Your task to perform on an android device: Add "razer thresher" to the cart on amazon, then select checkout. Image 0: 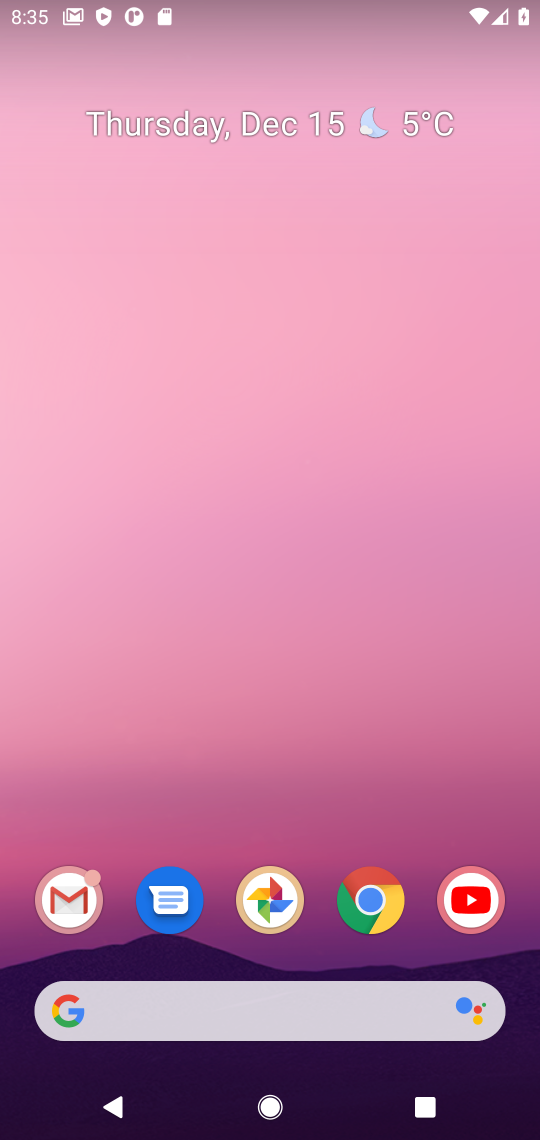
Step 0: click (388, 909)
Your task to perform on an android device: Add "razer thresher" to the cart on amazon, then select checkout. Image 1: 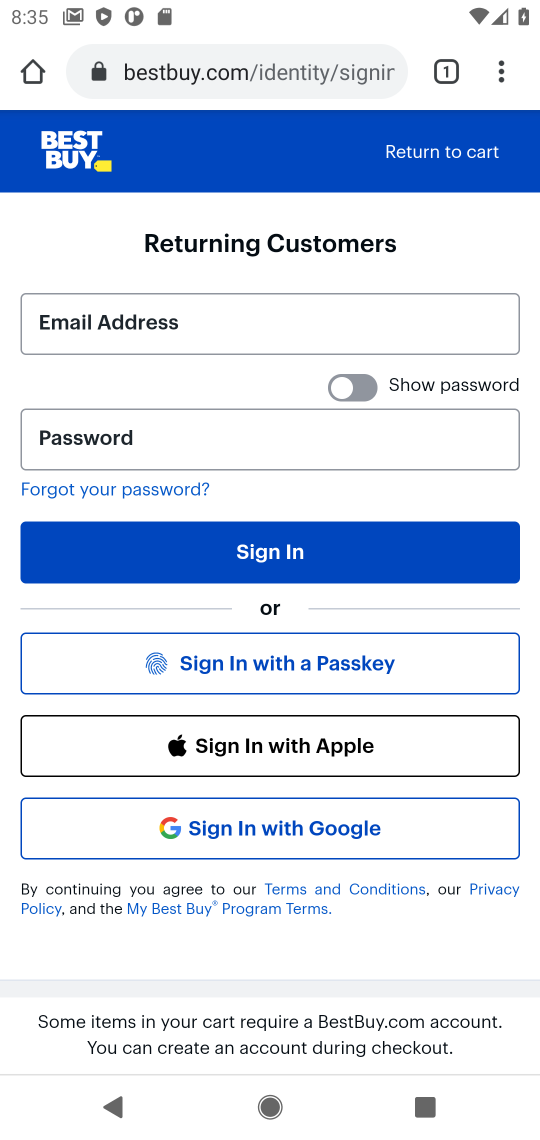
Step 1: click (170, 79)
Your task to perform on an android device: Add "razer thresher" to the cart on amazon, then select checkout. Image 2: 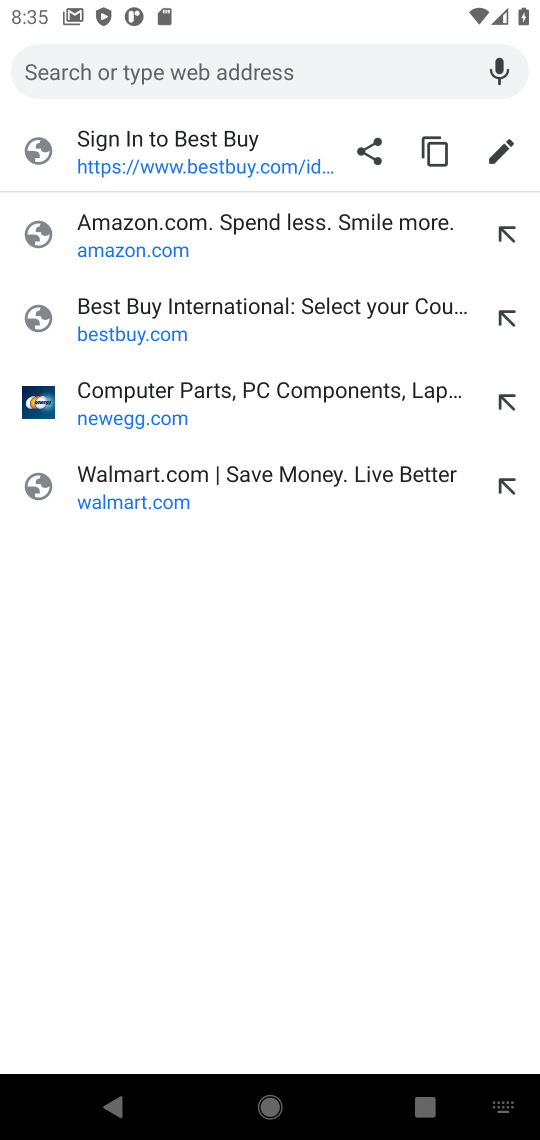
Step 2: type "amazon"
Your task to perform on an android device: Add "razer thresher" to the cart on amazon, then select checkout. Image 3: 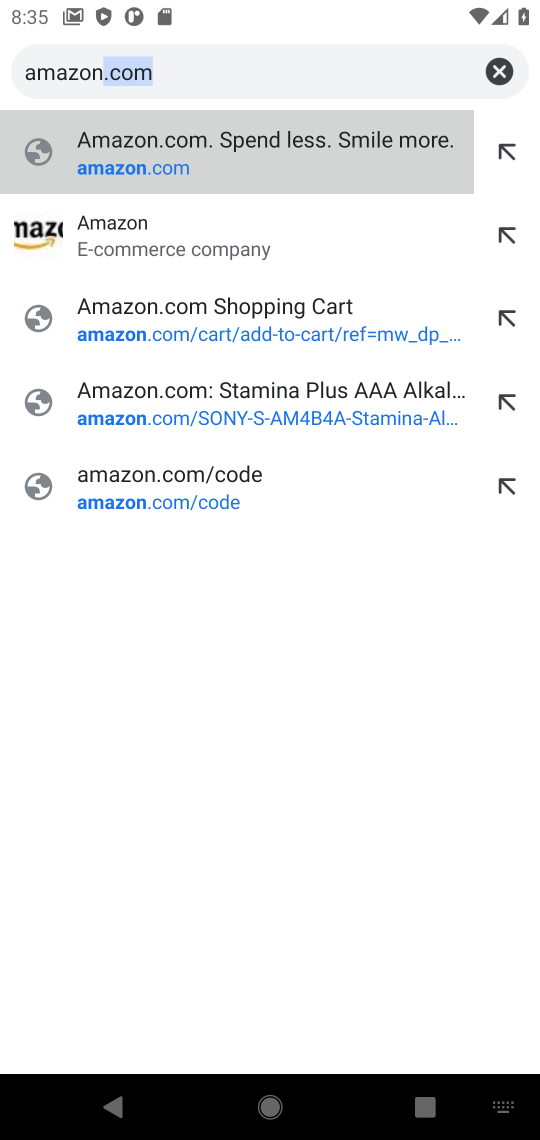
Step 3: click (149, 148)
Your task to perform on an android device: Add "razer thresher" to the cart on amazon, then select checkout. Image 4: 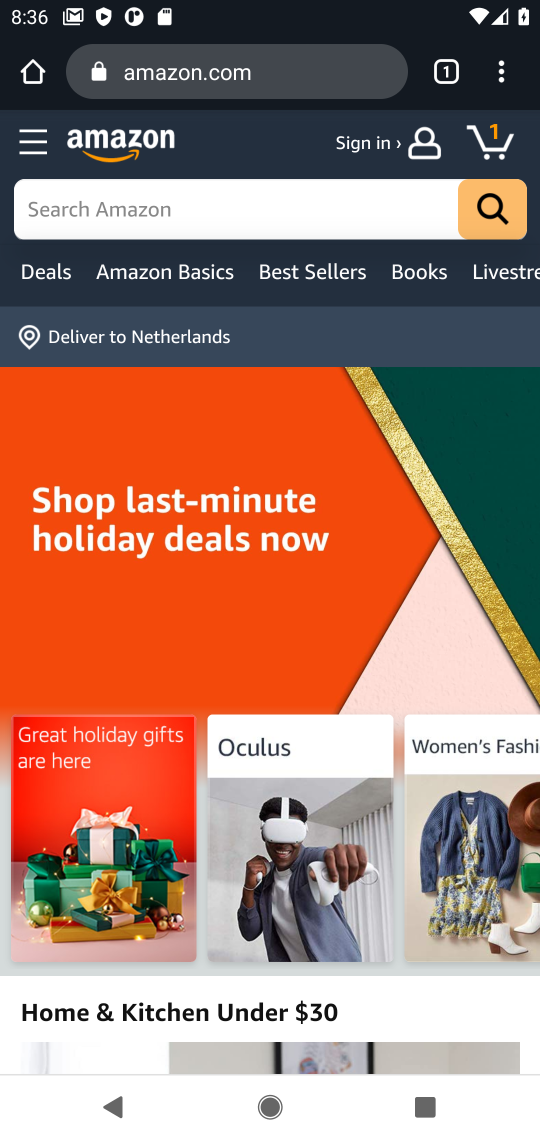
Step 4: click (220, 204)
Your task to perform on an android device: Add "razer thresher" to the cart on amazon, then select checkout. Image 5: 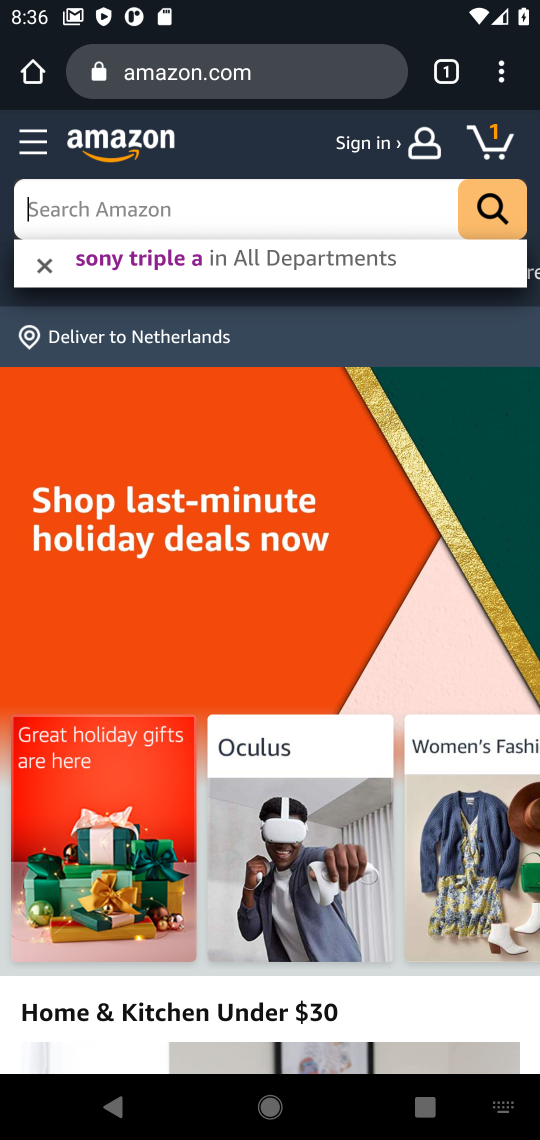
Step 5: type "razer thresher"
Your task to perform on an android device: Add "razer thresher" to the cart on amazon, then select checkout. Image 6: 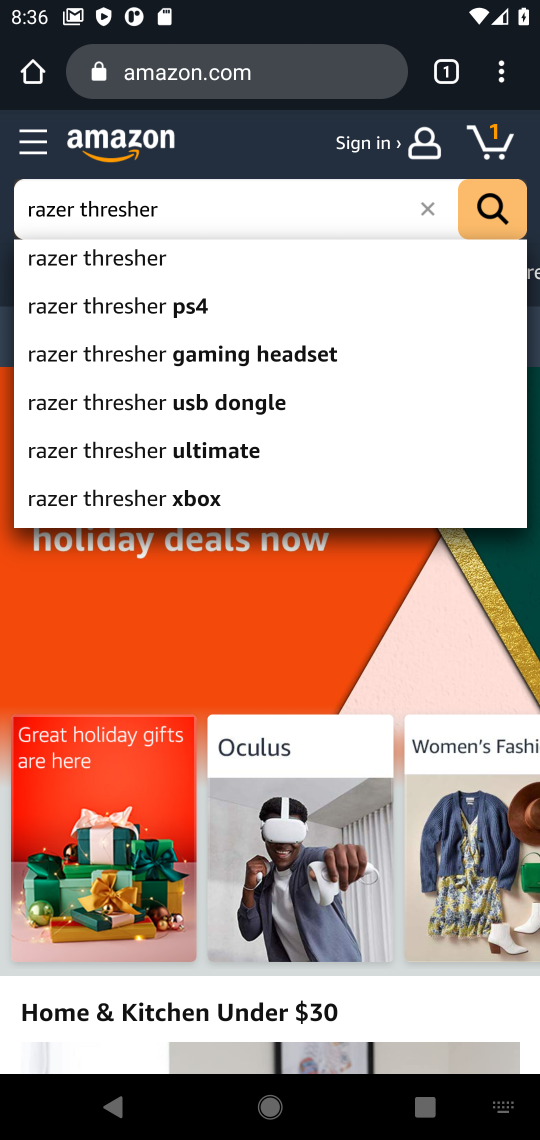
Step 6: click (494, 215)
Your task to perform on an android device: Add "razer thresher" to the cart on amazon, then select checkout. Image 7: 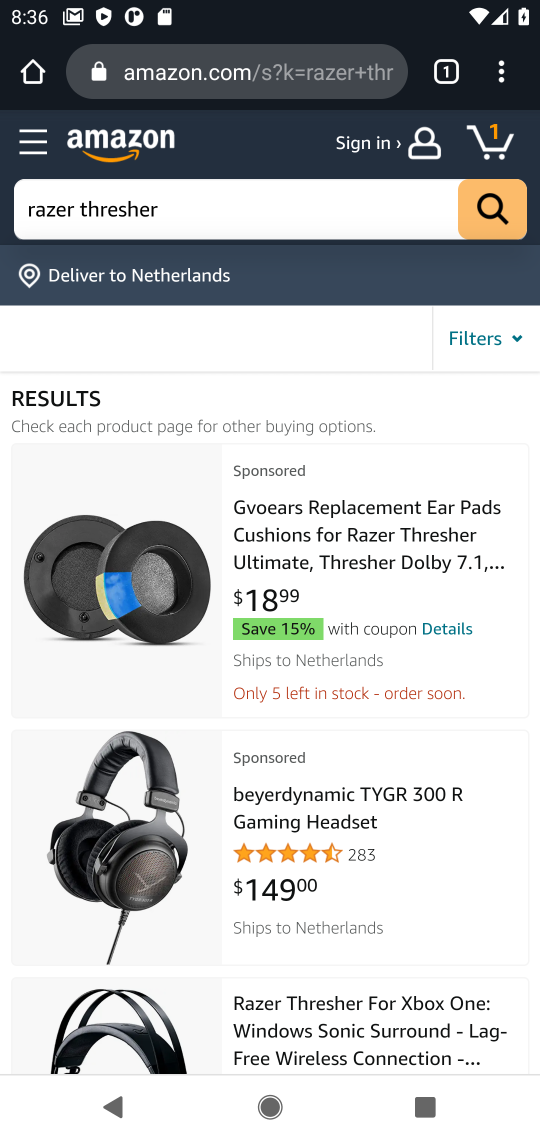
Step 7: click (331, 1038)
Your task to perform on an android device: Add "razer thresher" to the cart on amazon, then select checkout. Image 8: 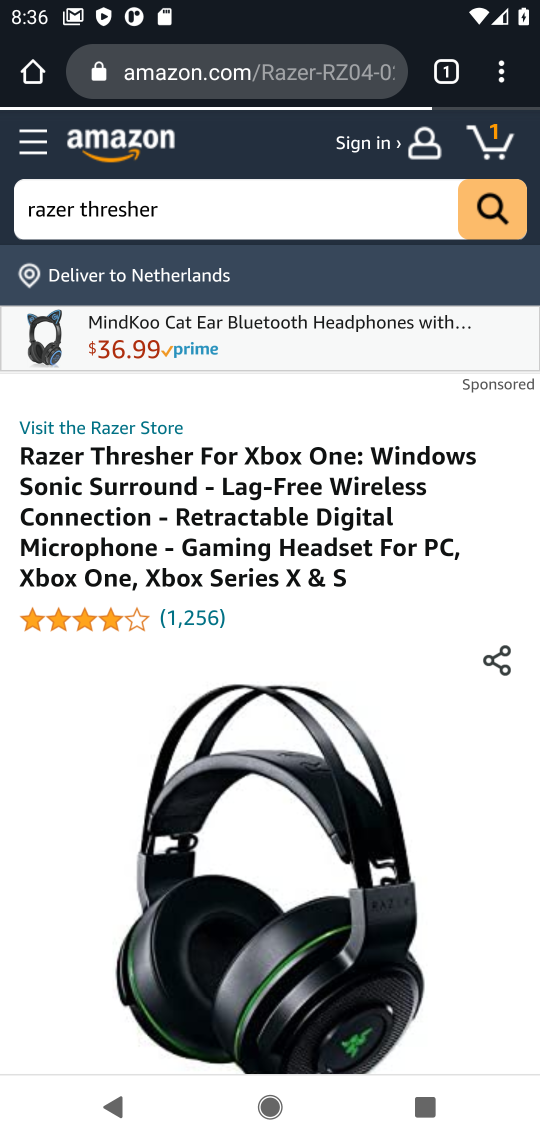
Step 8: drag from (441, 673) to (455, 446)
Your task to perform on an android device: Add "razer thresher" to the cart on amazon, then select checkout. Image 9: 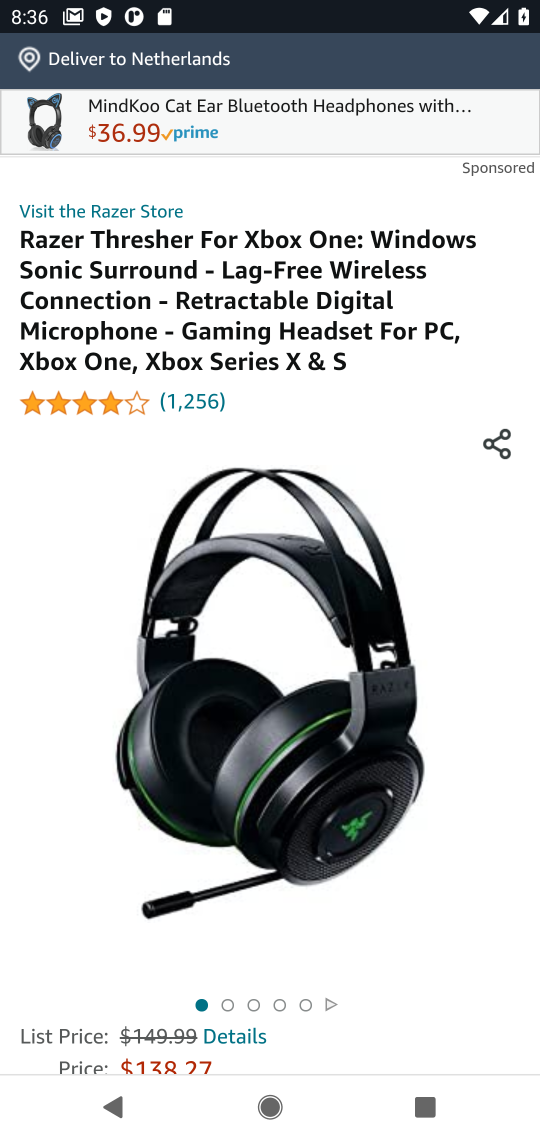
Step 9: drag from (413, 1027) to (438, 327)
Your task to perform on an android device: Add "razer thresher" to the cart on amazon, then select checkout. Image 10: 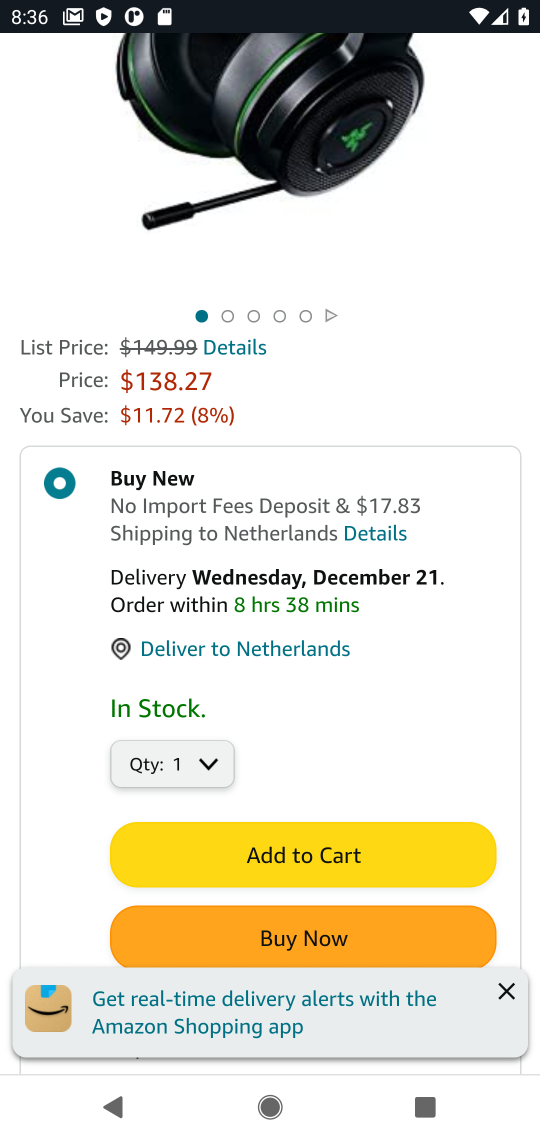
Step 10: click (290, 851)
Your task to perform on an android device: Add "razer thresher" to the cart on amazon, then select checkout. Image 11: 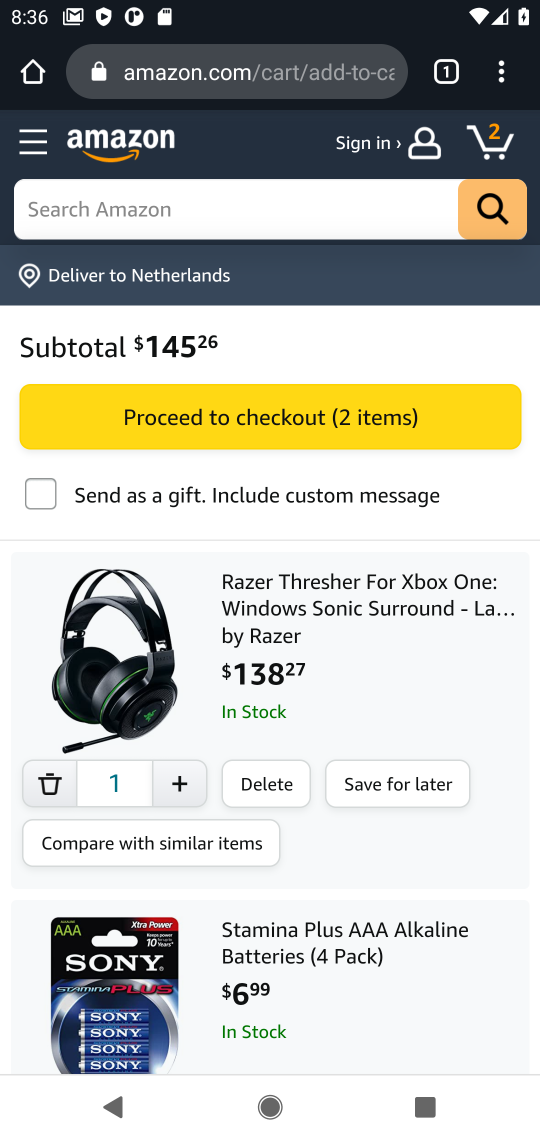
Step 11: click (344, 426)
Your task to perform on an android device: Add "razer thresher" to the cart on amazon, then select checkout. Image 12: 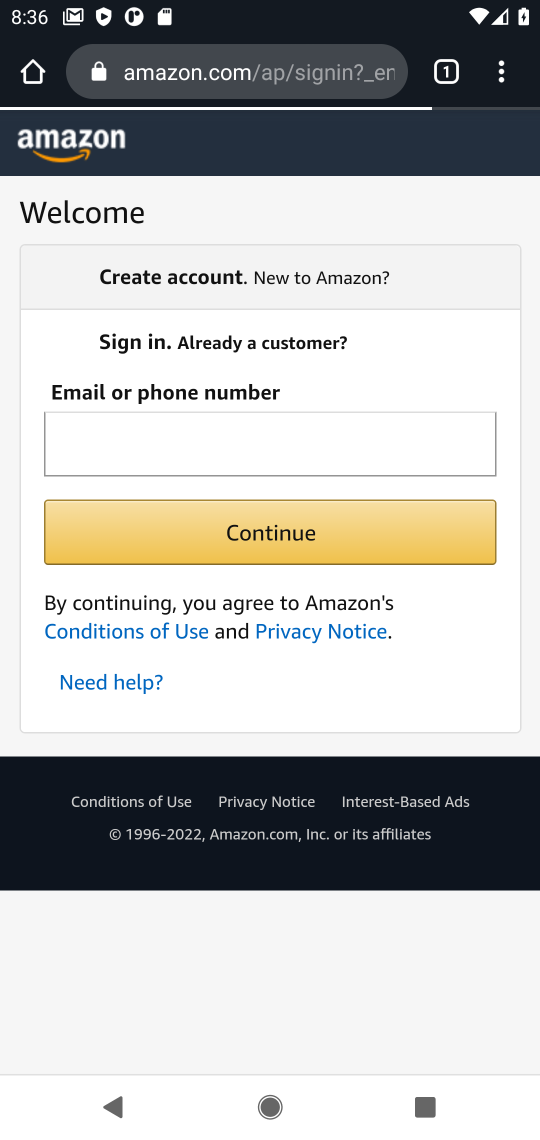
Step 12: task complete